Your task to perform on an android device: Open the web browser Image 0: 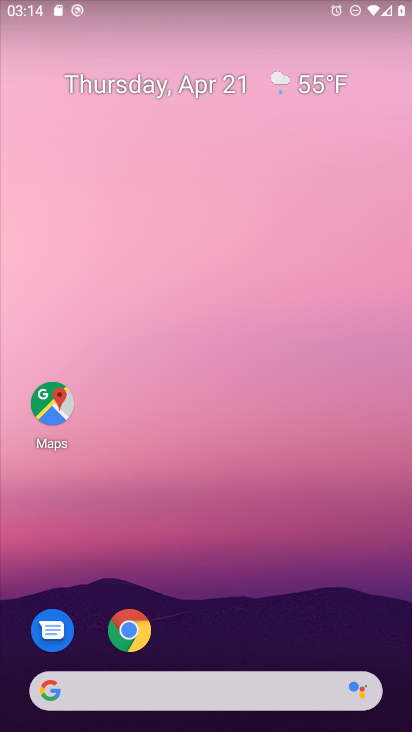
Step 0: click (276, 110)
Your task to perform on an android device: Open the web browser Image 1: 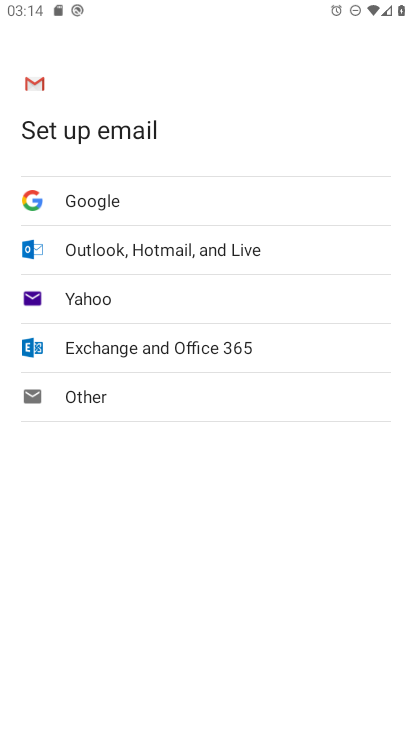
Step 1: press home button
Your task to perform on an android device: Open the web browser Image 2: 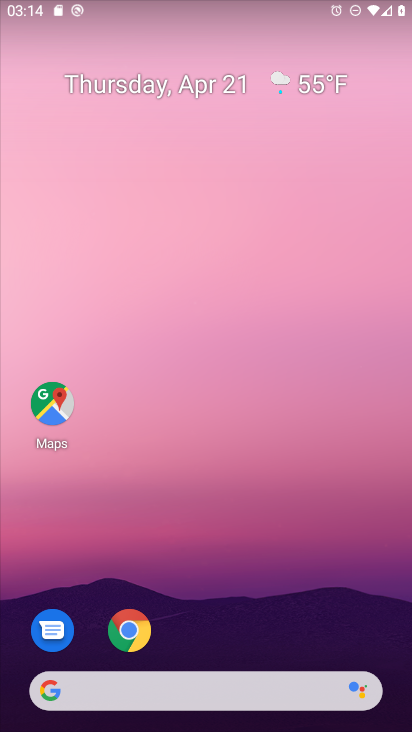
Step 2: click (115, 640)
Your task to perform on an android device: Open the web browser Image 3: 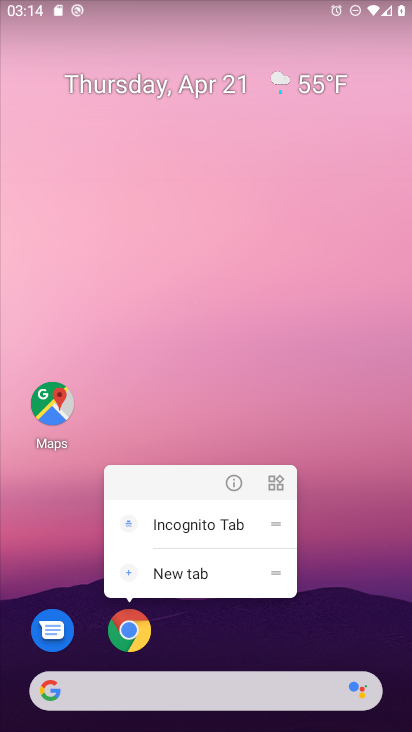
Step 3: click (115, 640)
Your task to perform on an android device: Open the web browser Image 4: 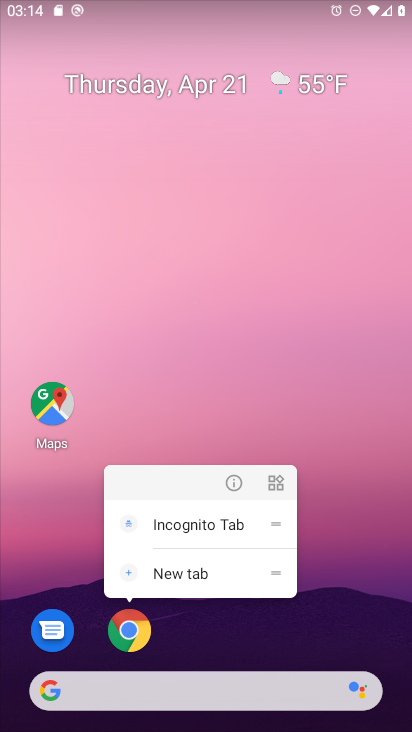
Step 4: click (125, 633)
Your task to perform on an android device: Open the web browser Image 5: 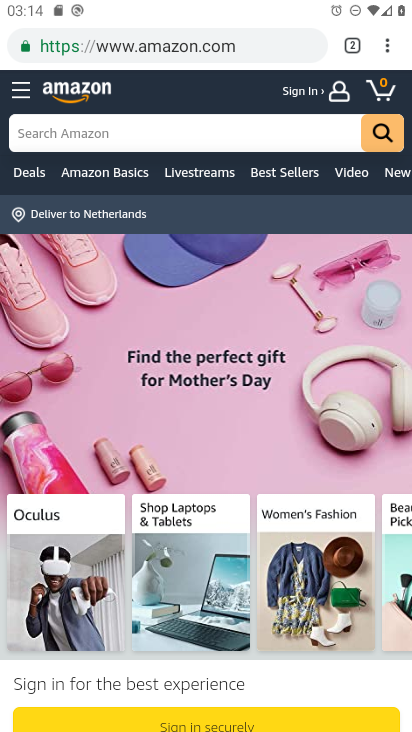
Step 5: task complete